Your task to perform on an android device: Go to accessibility settings Image 0: 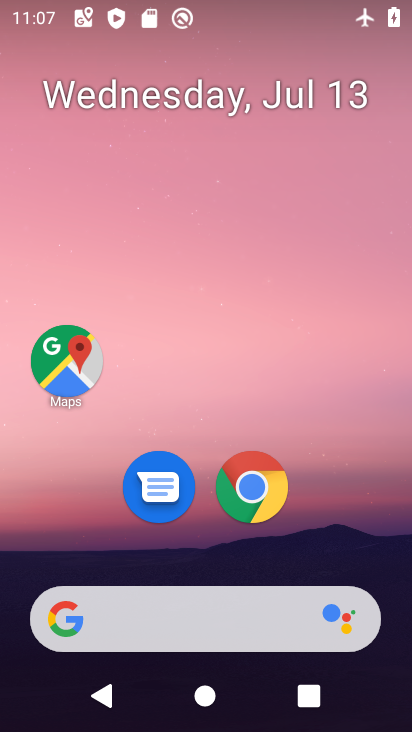
Step 0: drag from (190, 551) to (173, 79)
Your task to perform on an android device: Go to accessibility settings Image 1: 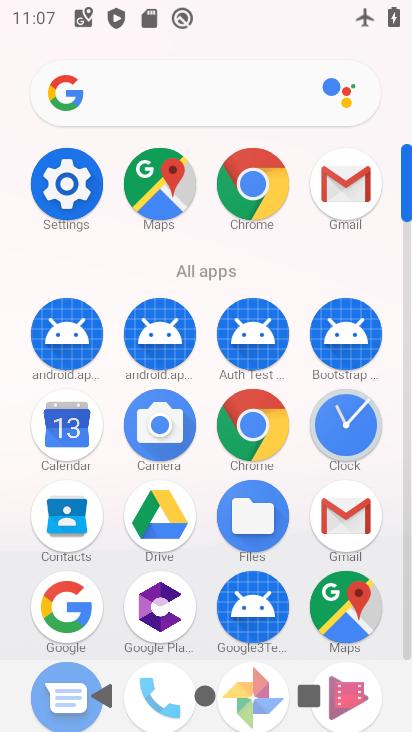
Step 1: click (61, 198)
Your task to perform on an android device: Go to accessibility settings Image 2: 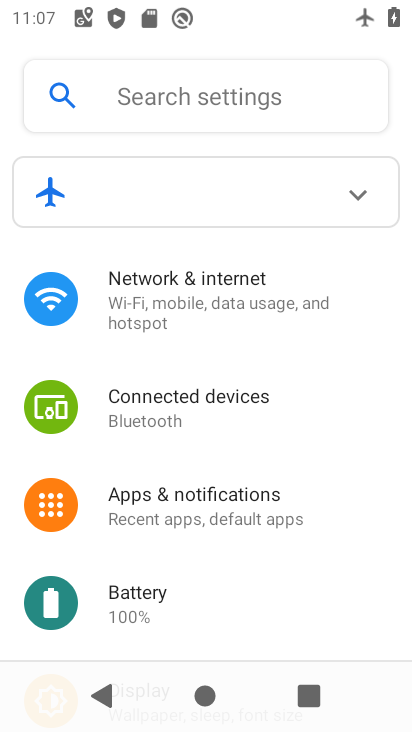
Step 2: drag from (192, 554) to (172, 103)
Your task to perform on an android device: Go to accessibility settings Image 3: 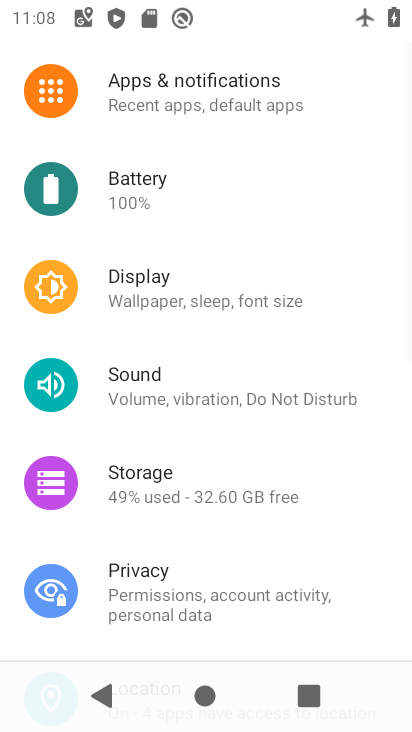
Step 3: drag from (141, 573) to (166, 84)
Your task to perform on an android device: Go to accessibility settings Image 4: 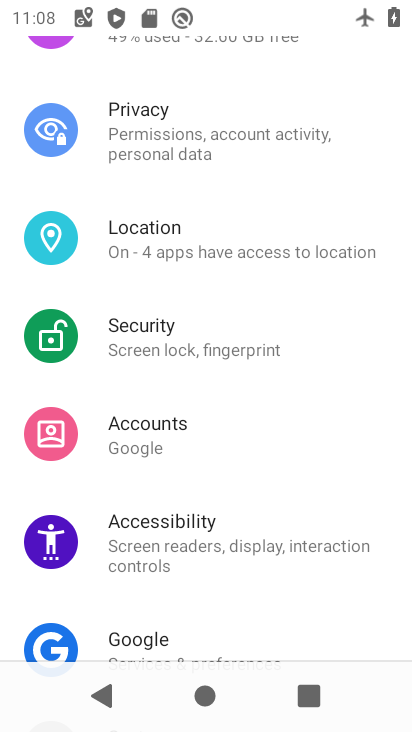
Step 4: click (205, 533)
Your task to perform on an android device: Go to accessibility settings Image 5: 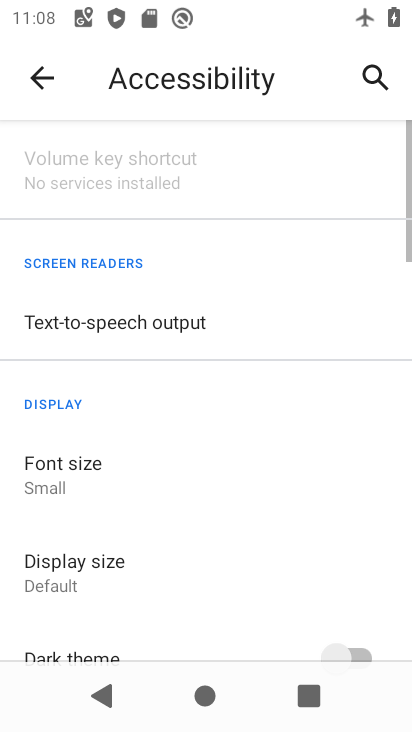
Step 5: task complete